Your task to perform on an android device: Look up the best rated bike on Walmart Image 0: 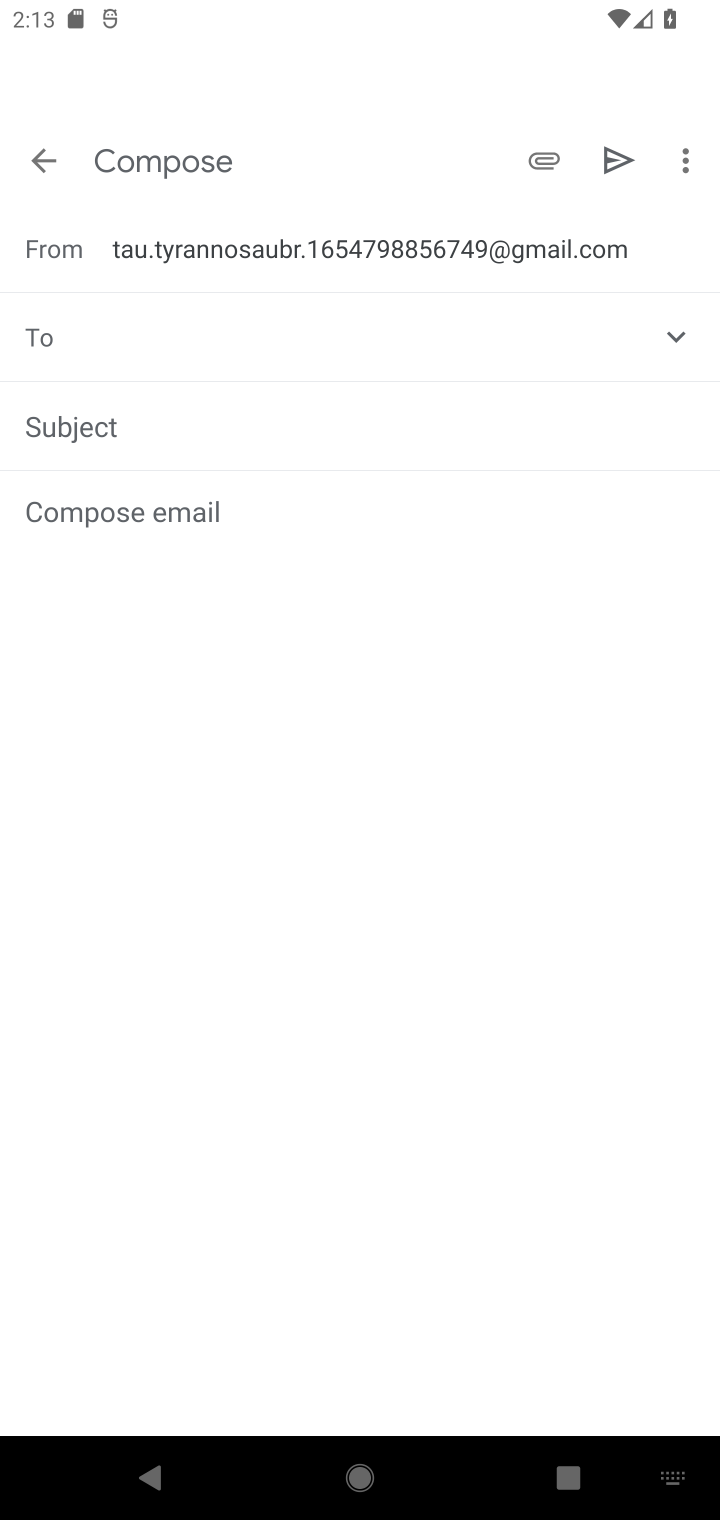
Step 0: press home button
Your task to perform on an android device: Look up the best rated bike on Walmart Image 1: 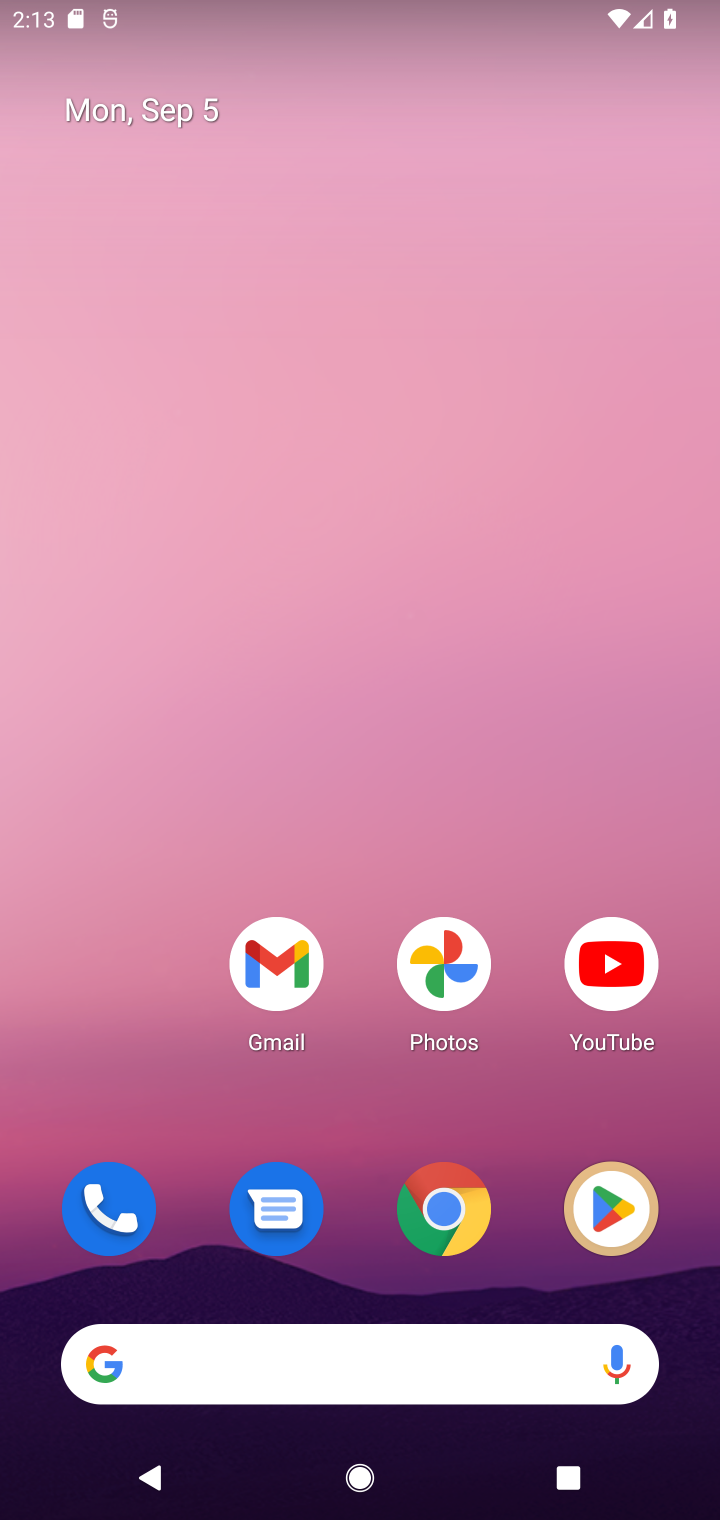
Step 1: drag from (338, 1167) to (291, 174)
Your task to perform on an android device: Look up the best rated bike on Walmart Image 2: 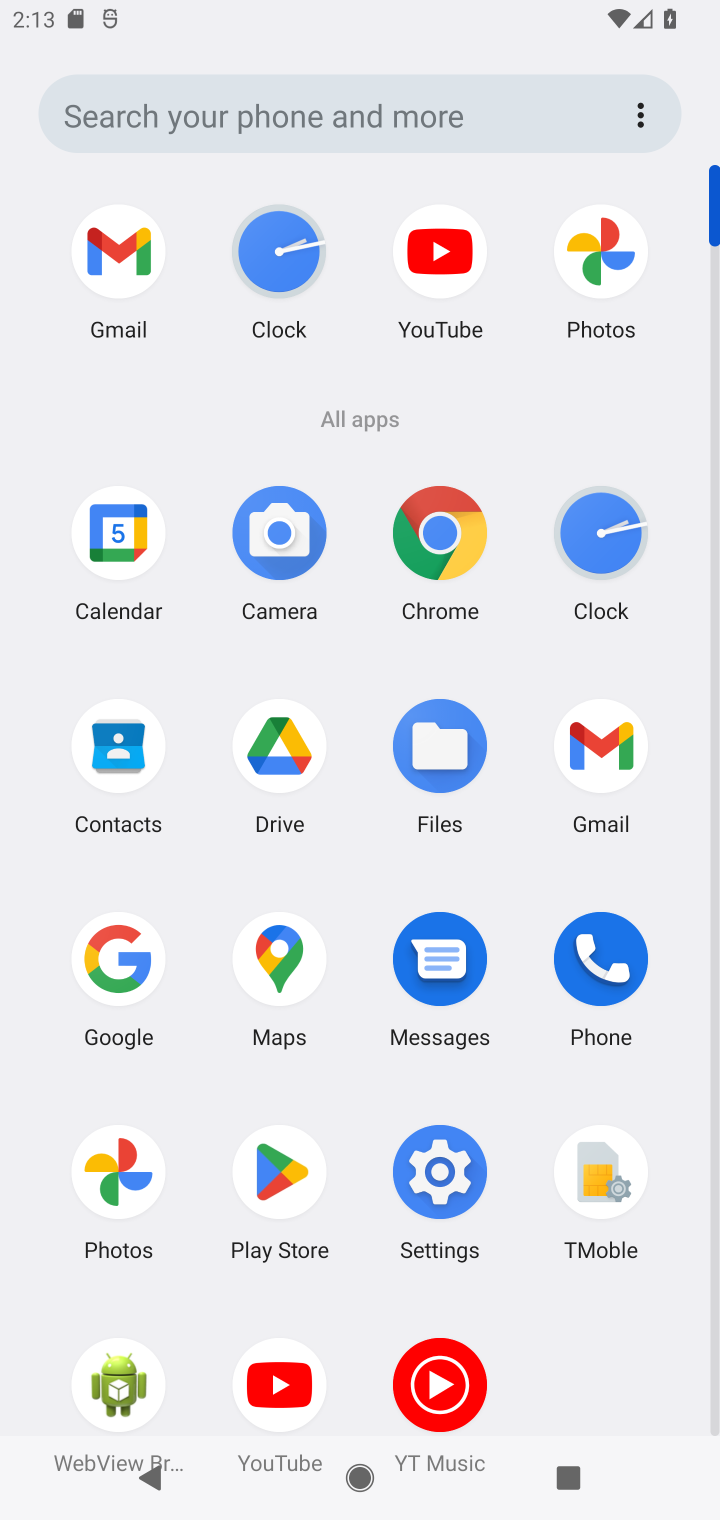
Step 2: click (94, 964)
Your task to perform on an android device: Look up the best rated bike on Walmart Image 3: 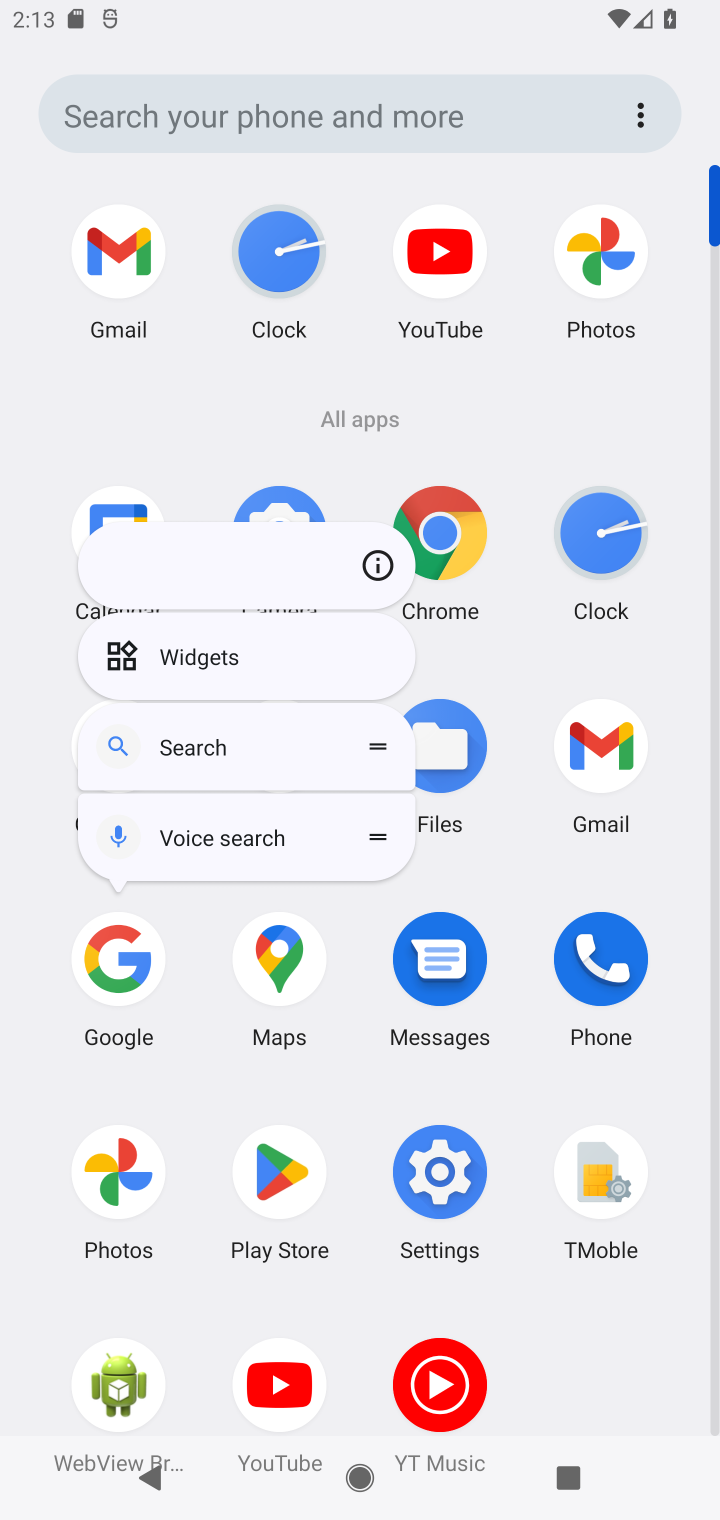
Step 3: click (124, 955)
Your task to perform on an android device: Look up the best rated bike on Walmart Image 4: 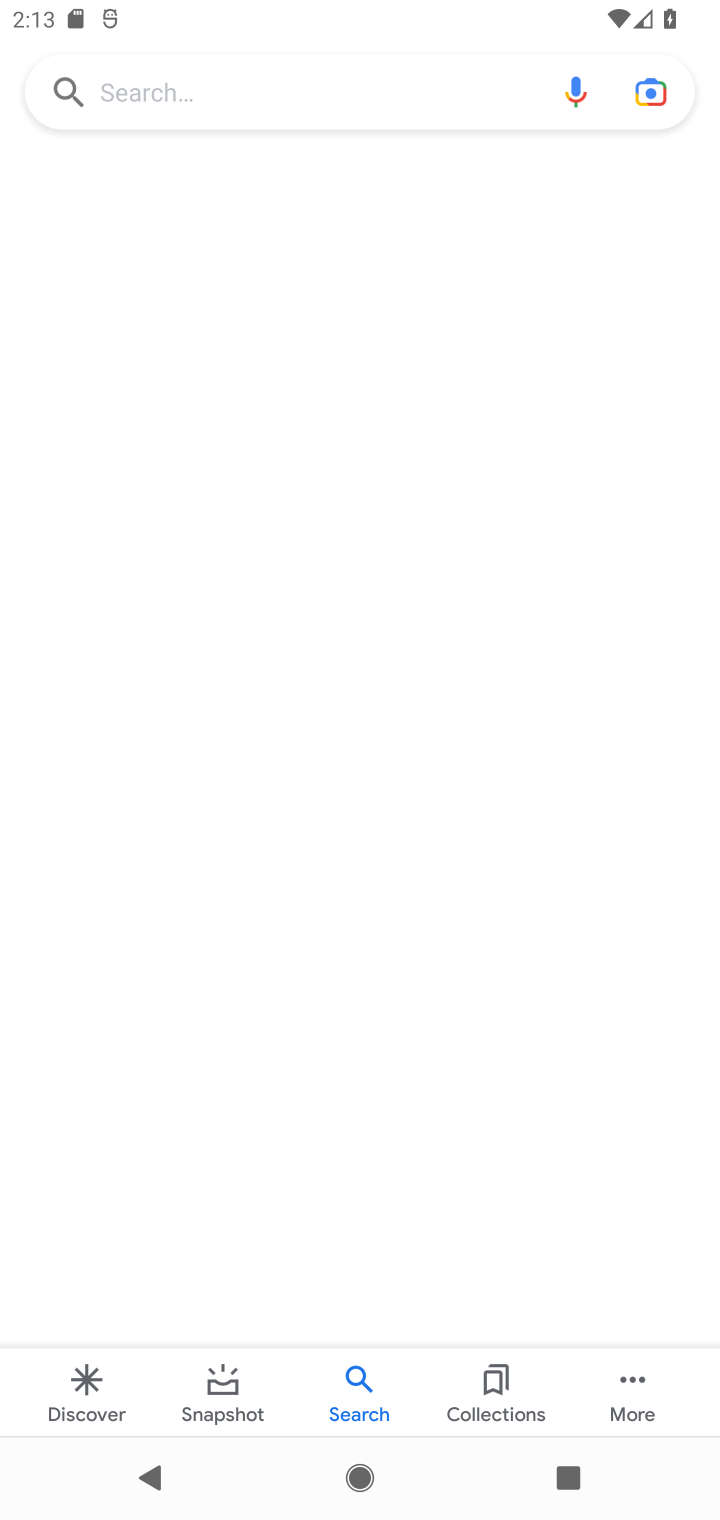
Step 4: click (106, 95)
Your task to perform on an android device: Look up the best rated bike on Walmart Image 5: 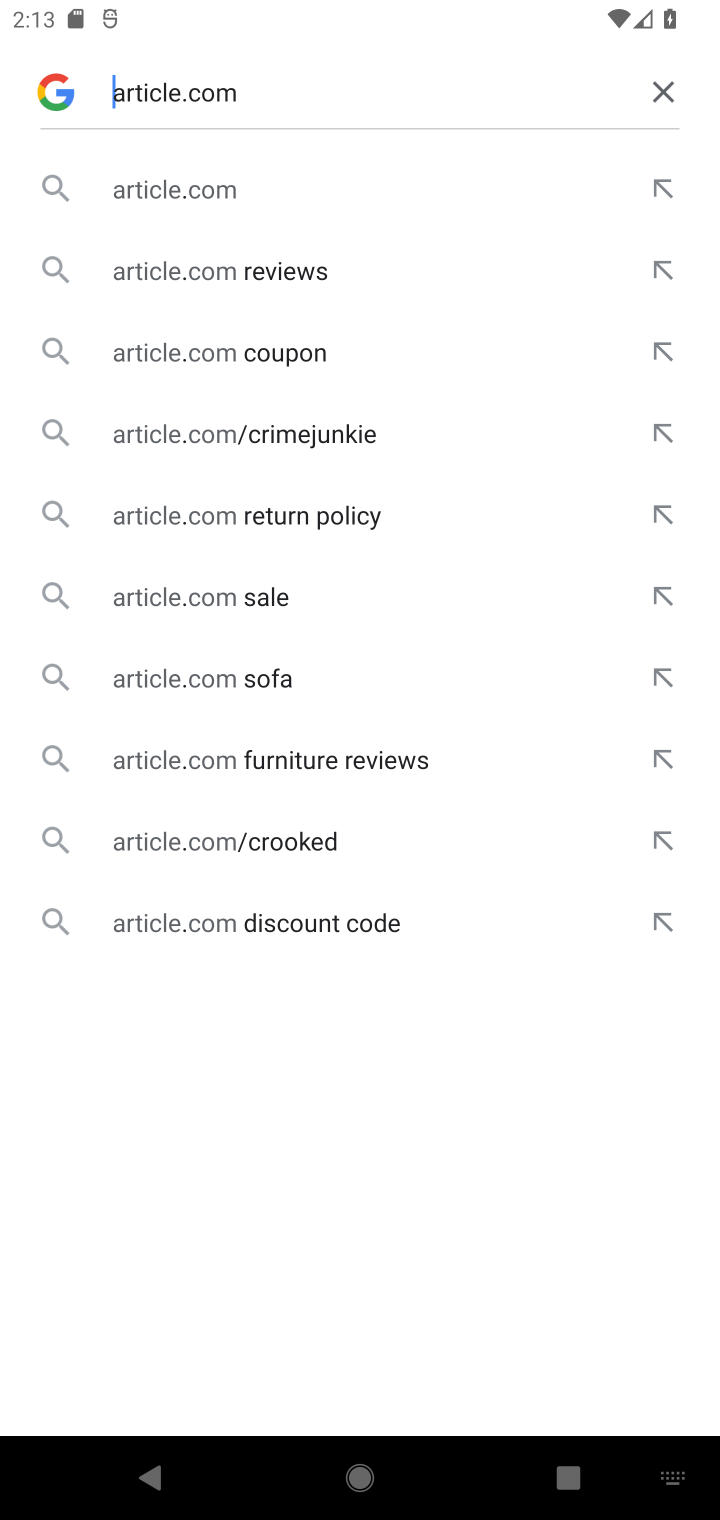
Step 5: click (652, 84)
Your task to perform on an android device: Look up the best rated bike on Walmart Image 6: 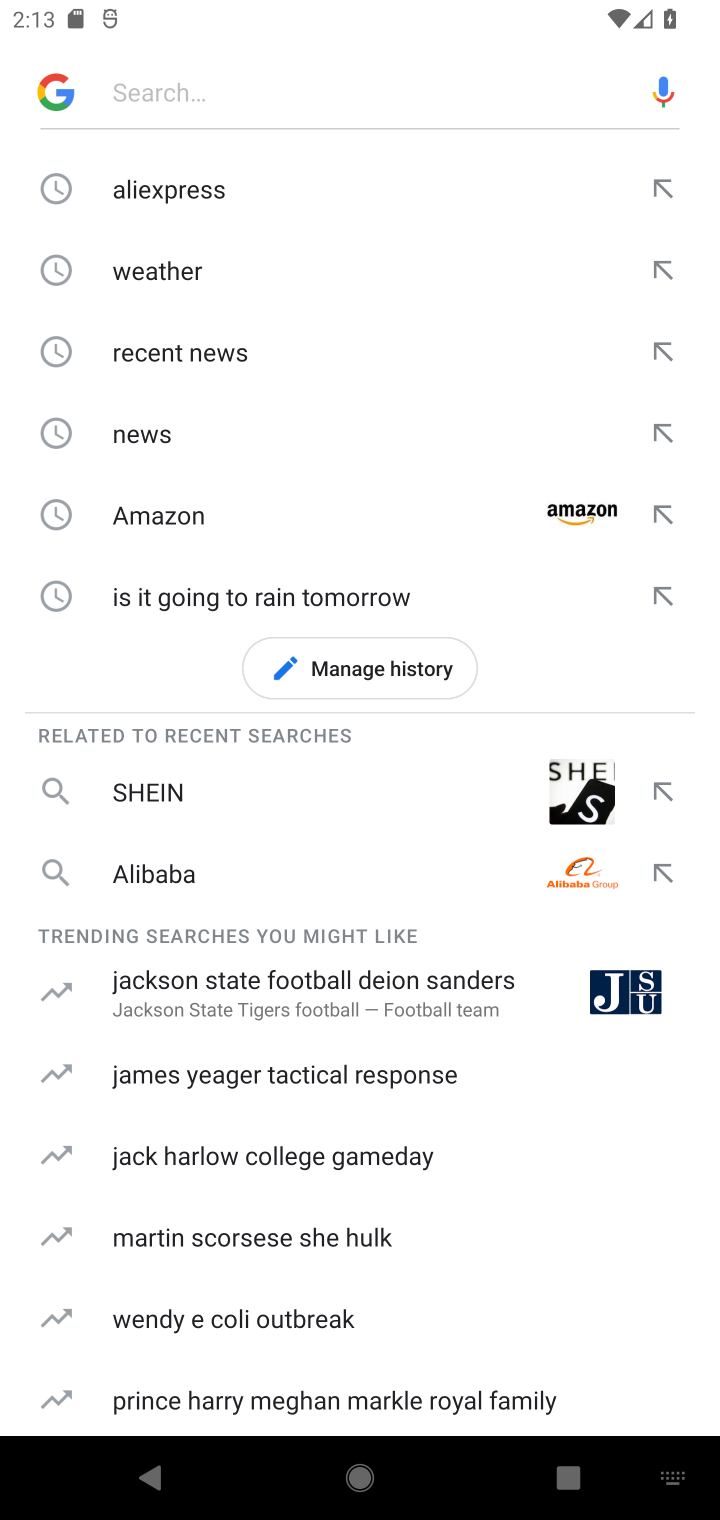
Step 6: type "Walmart"
Your task to perform on an android device: Look up the best rated bike on Walmart Image 7: 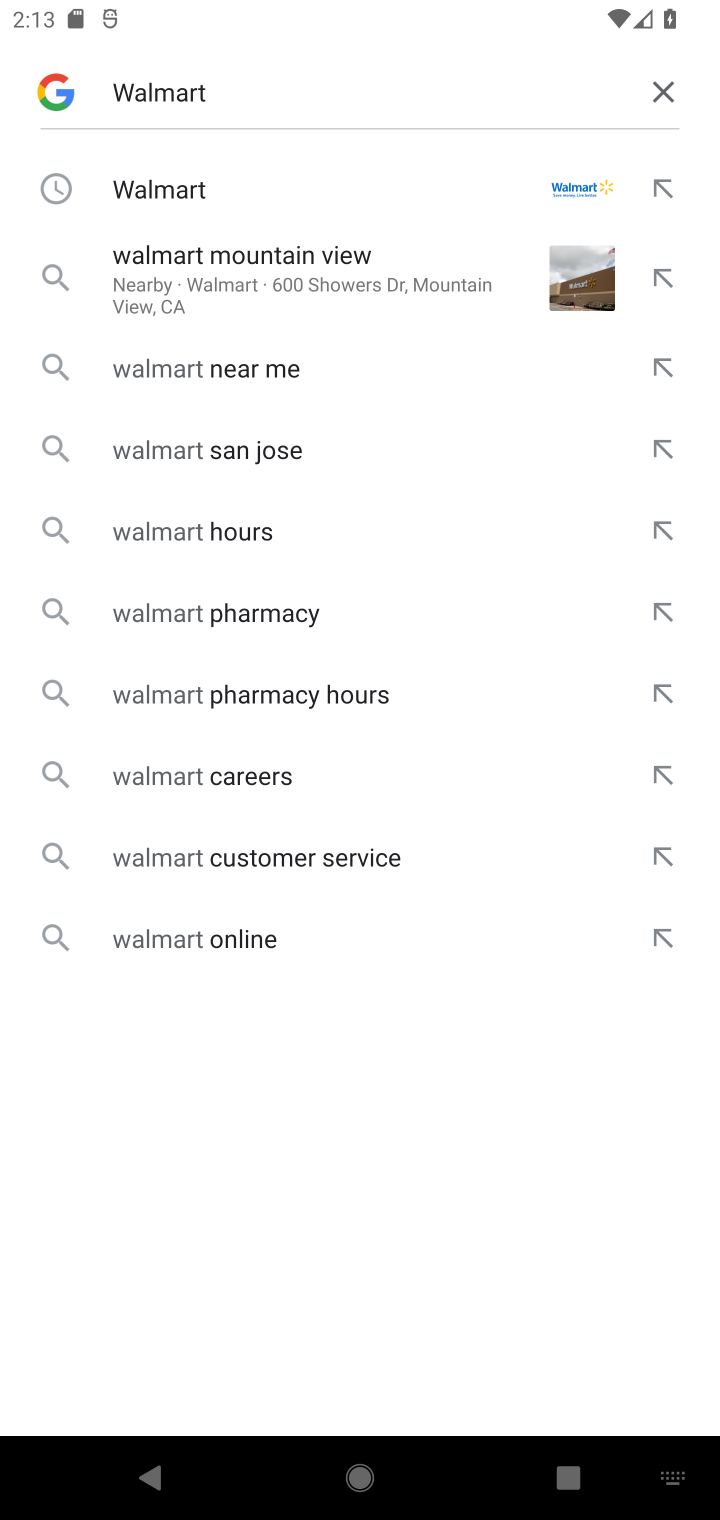
Step 7: click (179, 176)
Your task to perform on an android device: Look up the best rated bike on Walmart Image 8: 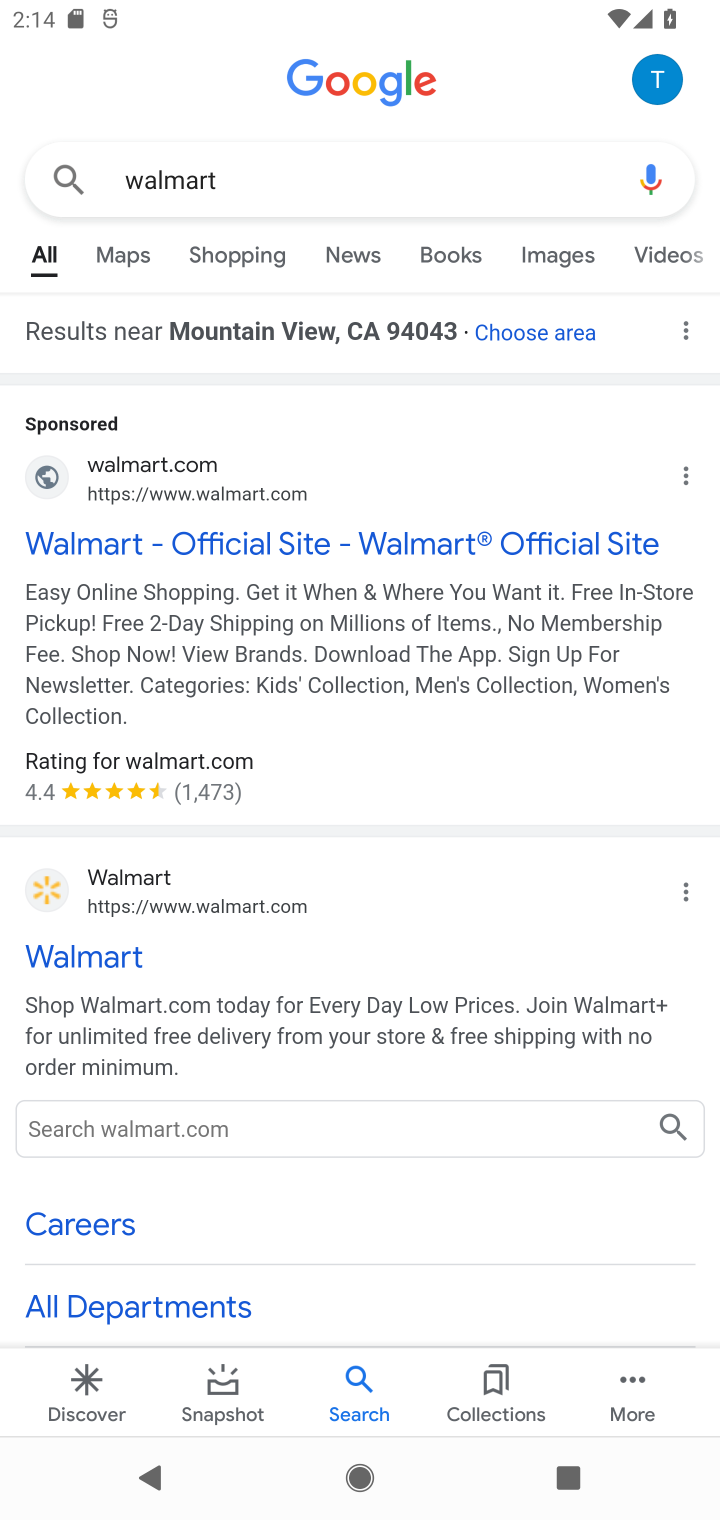
Step 8: click (204, 544)
Your task to perform on an android device: Look up the best rated bike on Walmart Image 9: 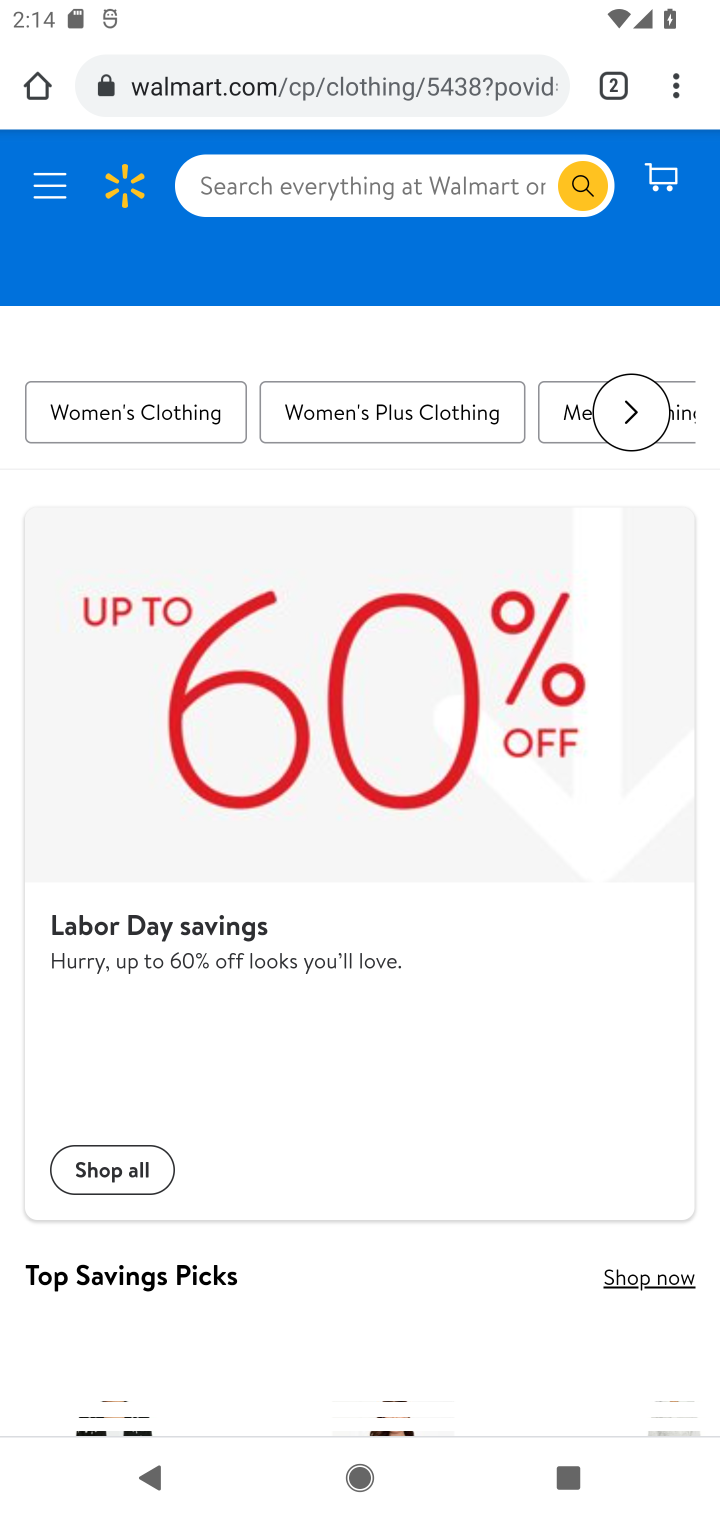
Step 9: click (273, 179)
Your task to perform on an android device: Look up the best rated bike on Walmart Image 10: 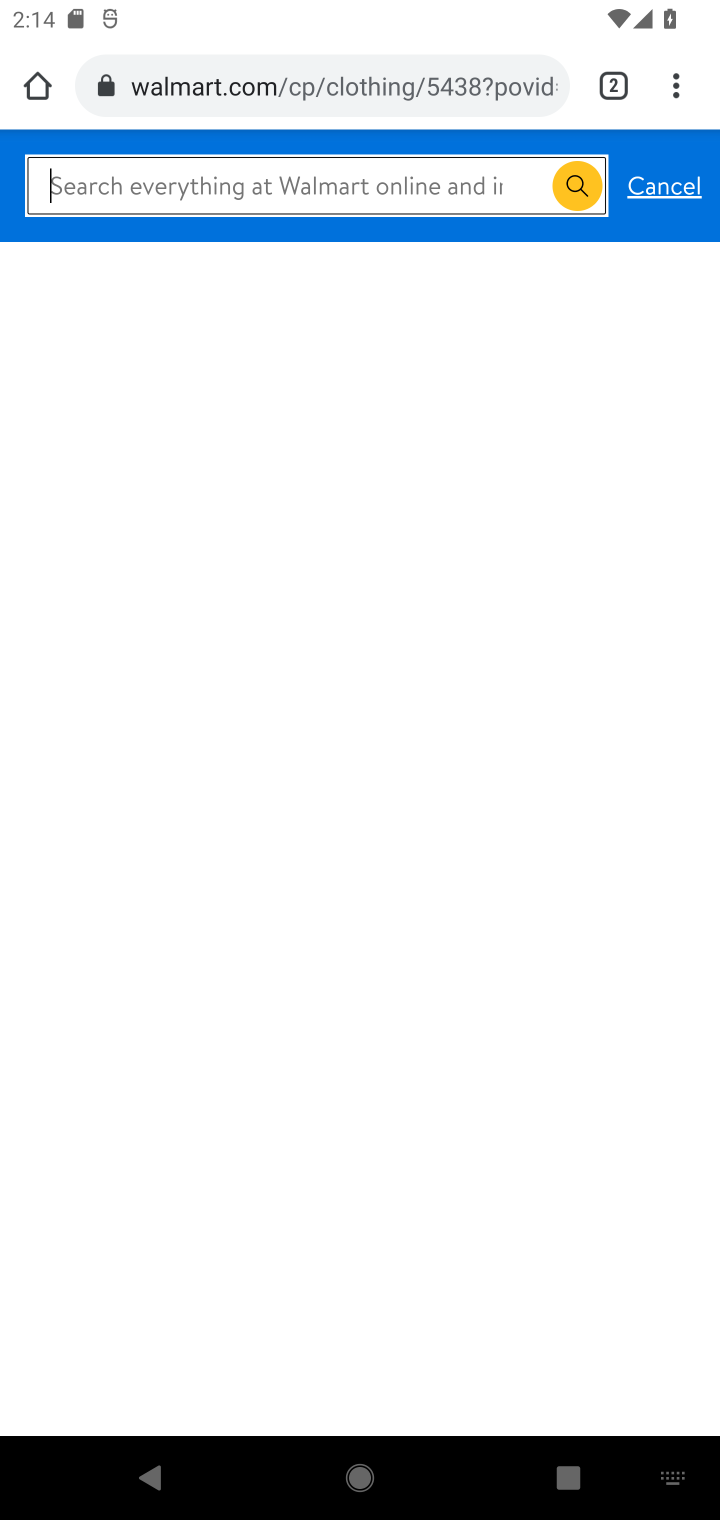
Step 10: type "best rated bike"
Your task to perform on an android device: Look up the best rated bike on Walmart Image 11: 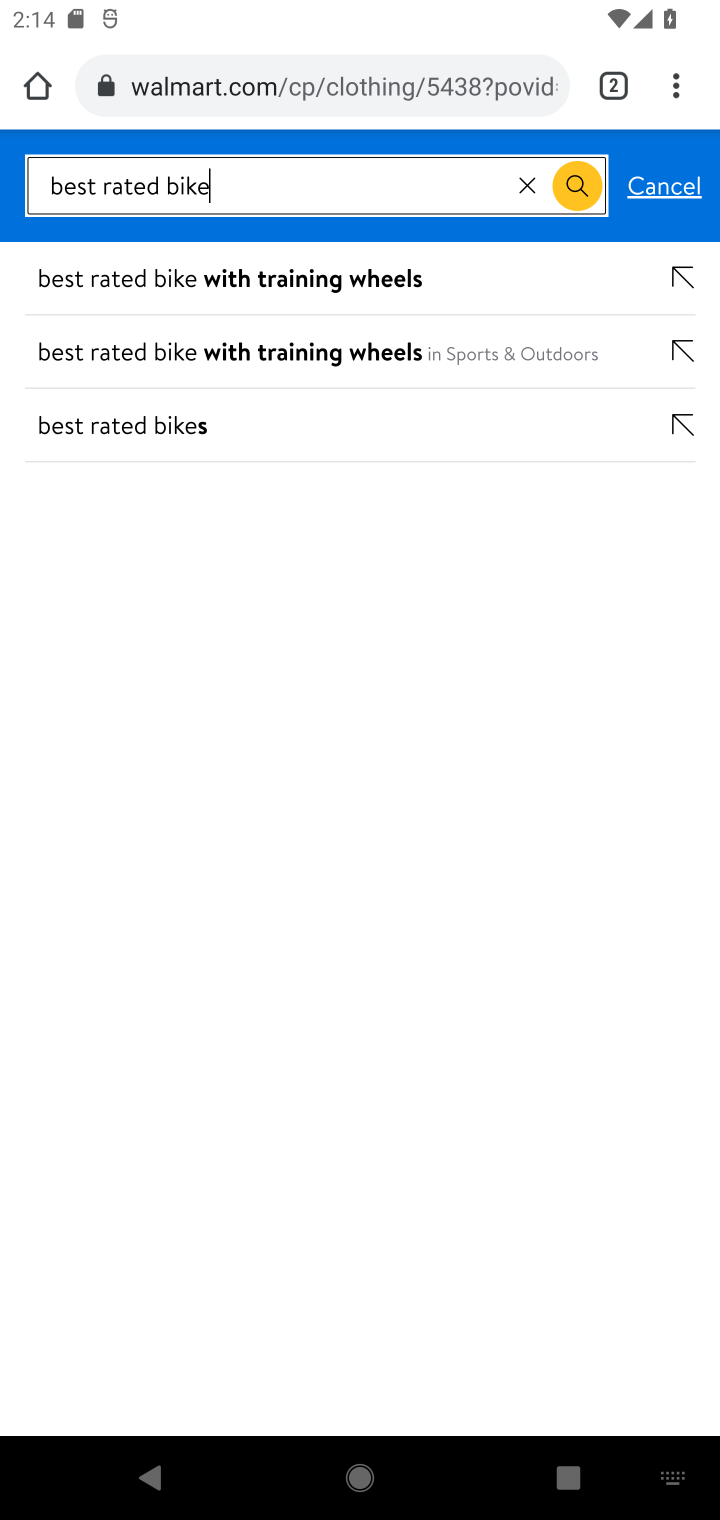
Step 11: click (184, 424)
Your task to perform on an android device: Look up the best rated bike on Walmart Image 12: 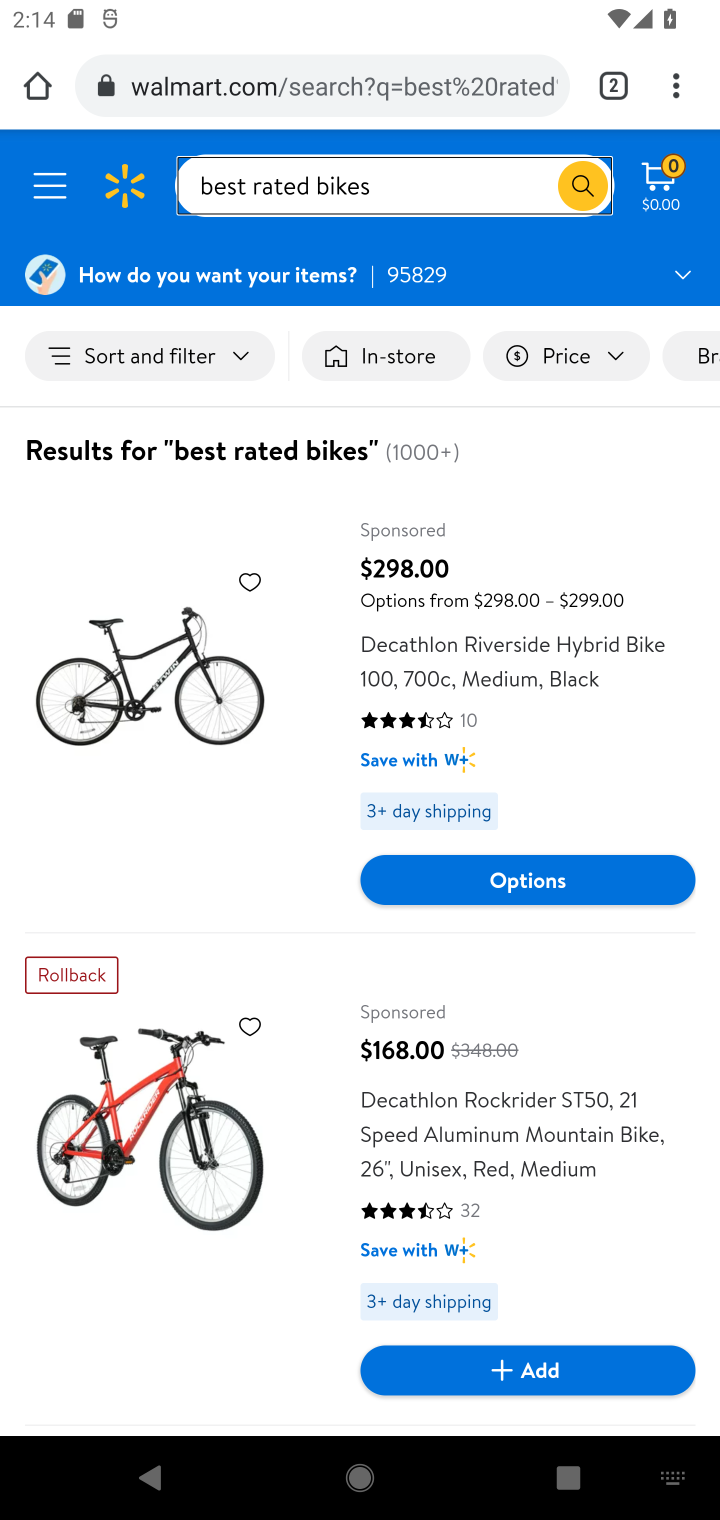
Step 12: drag from (248, 1159) to (298, 499)
Your task to perform on an android device: Look up the best rated bike on Walmart Image 13: 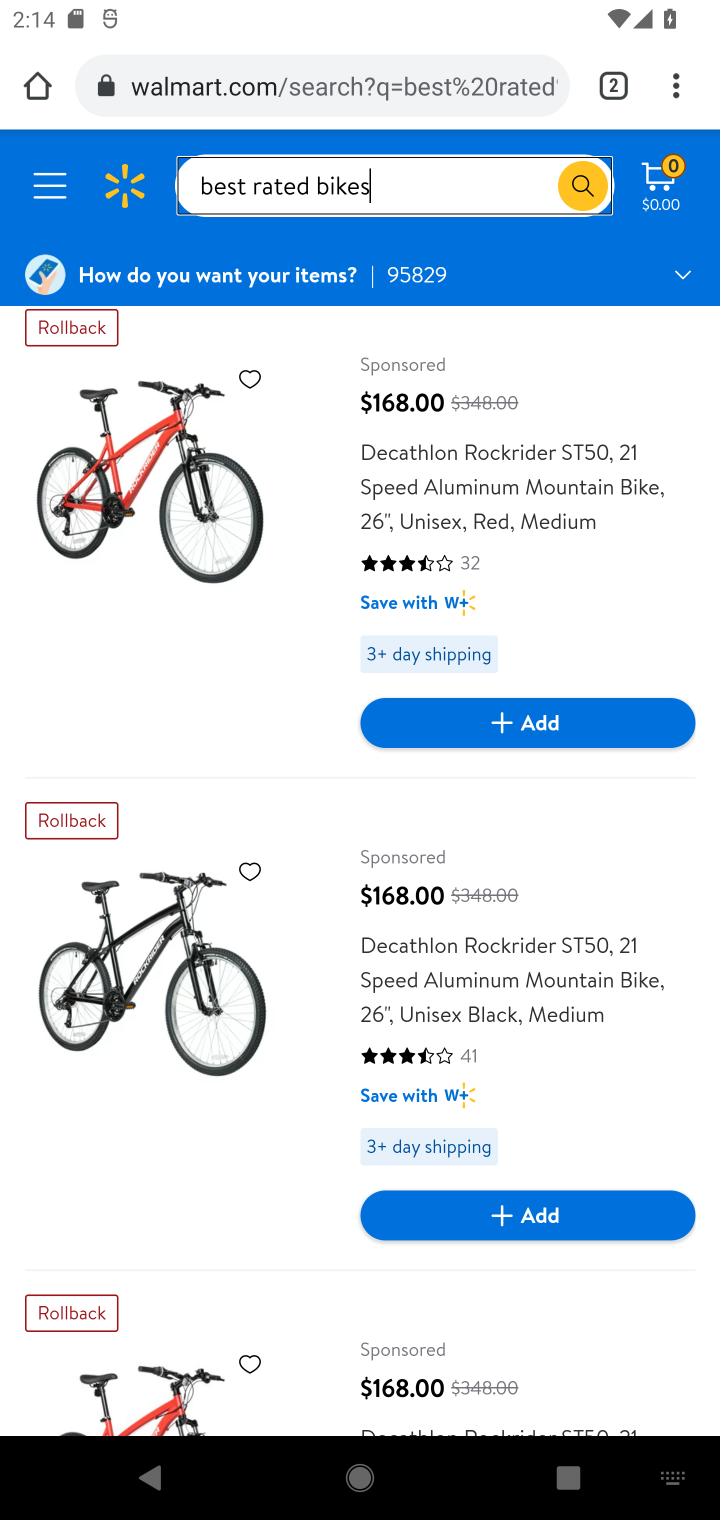
Step 13: click (308, 486)
Your task to perform on an android device: Look up the best rated bike on Walmart Image 14: 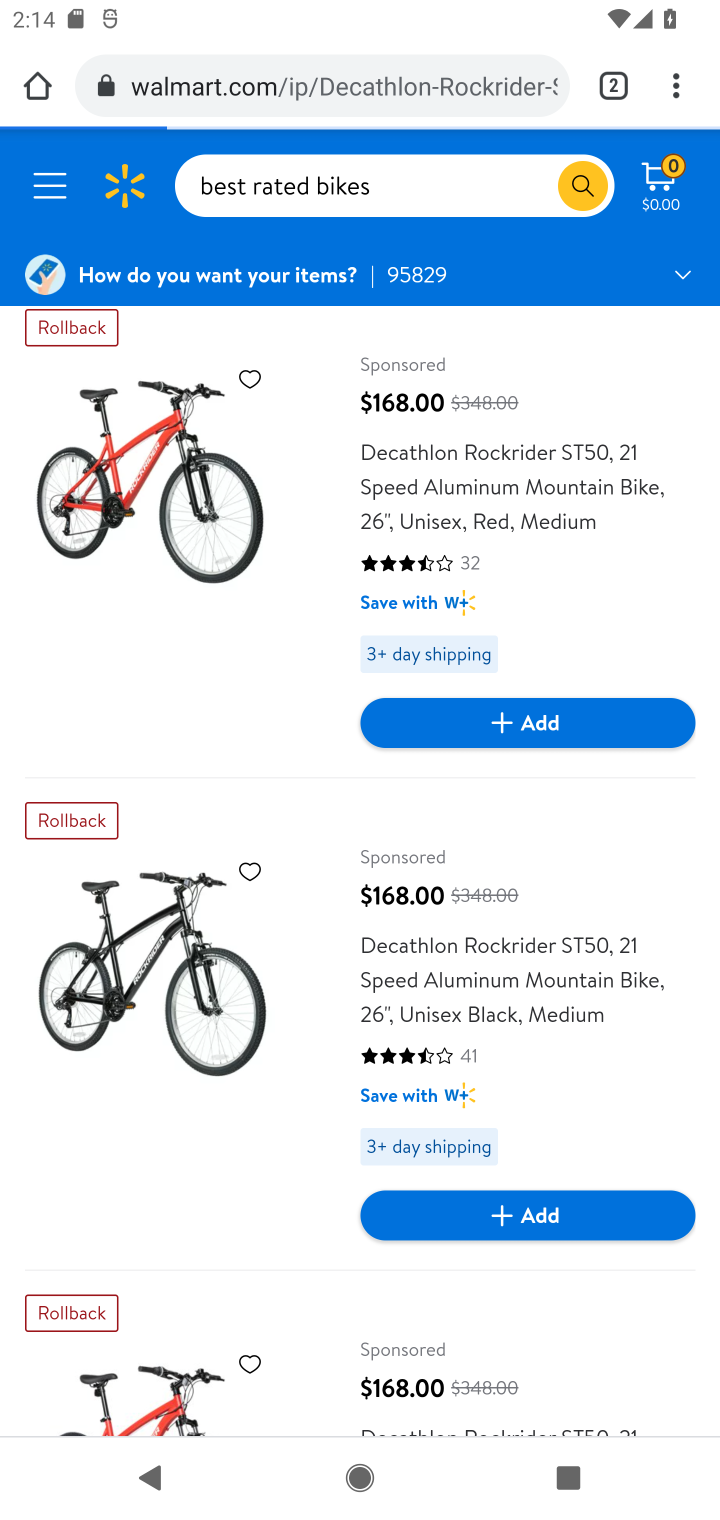
Step 14: task complete